Your task to perform on an android device: Open Amazon Image 0: 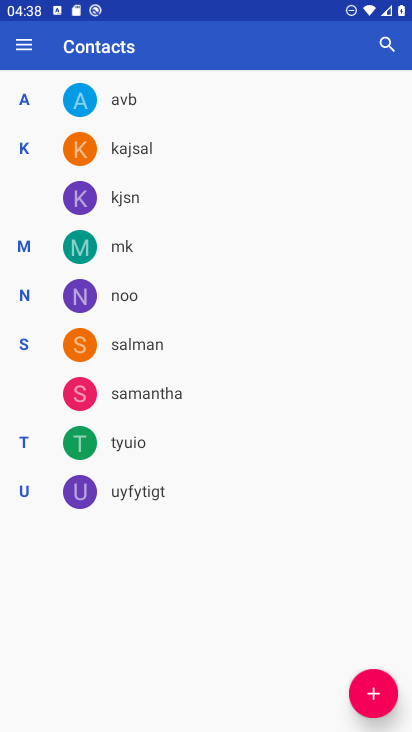
Step 0: press home button
Your task to perform on an android device: Open Amazon Image 1: 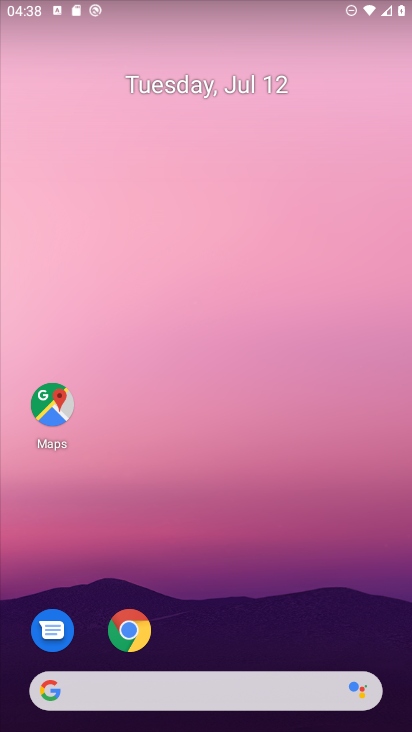
Step 1: click (125, 630)
Your task to perform on an android device: Open Amazon Image 2: 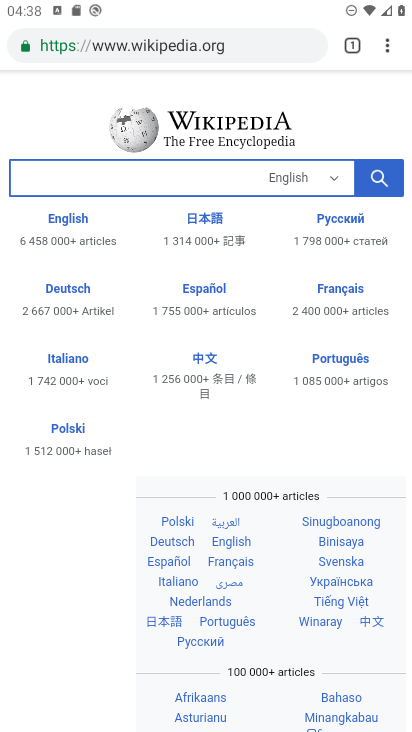
Step 2: click (261, 45)
Your task to perform on an android device: Open Amazon Image 3: 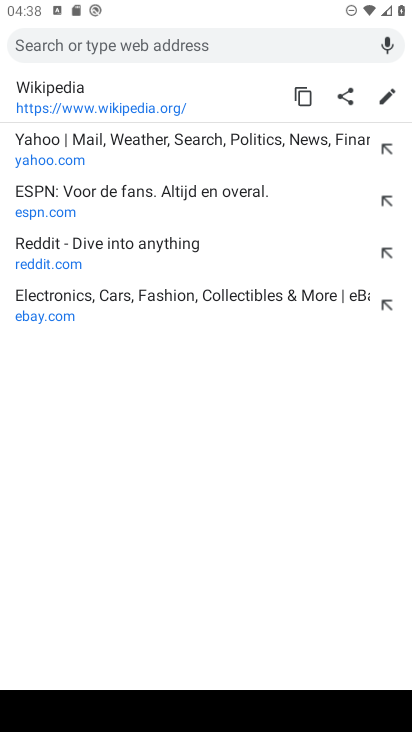
Step 3: type "Amazon"
Your task to perform on an android device: Open Amazon Image 4: 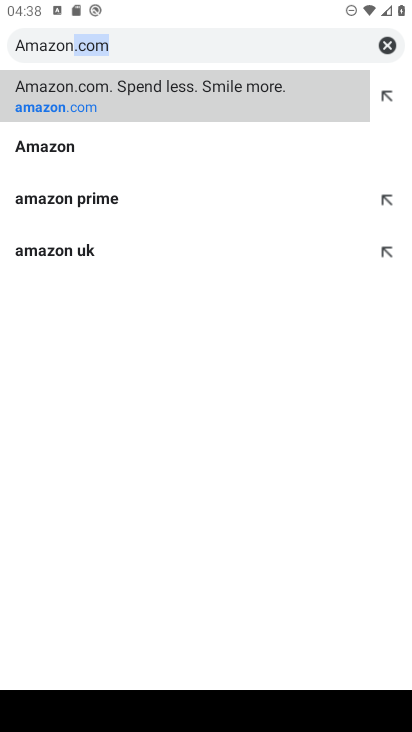
Step 4: click (86, 93)
Your task to perform on an android device: Open Amazon Image 5: 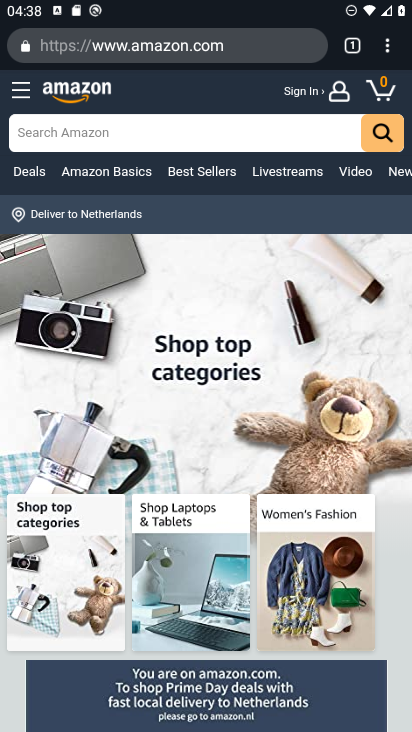
Step 5: task complete